Your task to perform on an android device: turn off location Image 0: 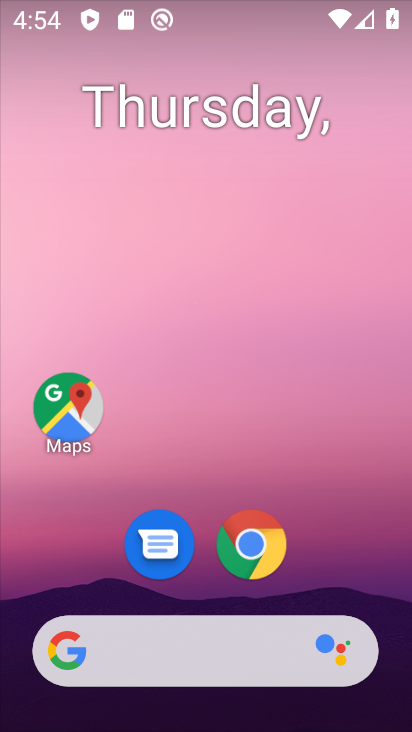
Step 0: drag from (338, 481) to (411, 80)
Your task to perform on an android device: turn off location Image 1: 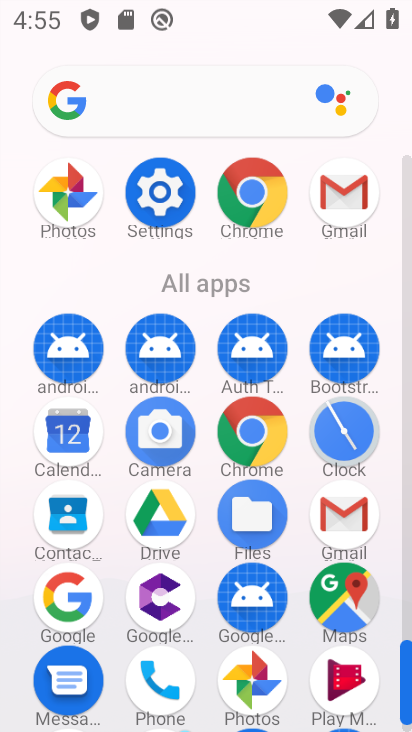
Step 1: click (162, 207)
Your task to perform on an android device: turn off location Image 2: 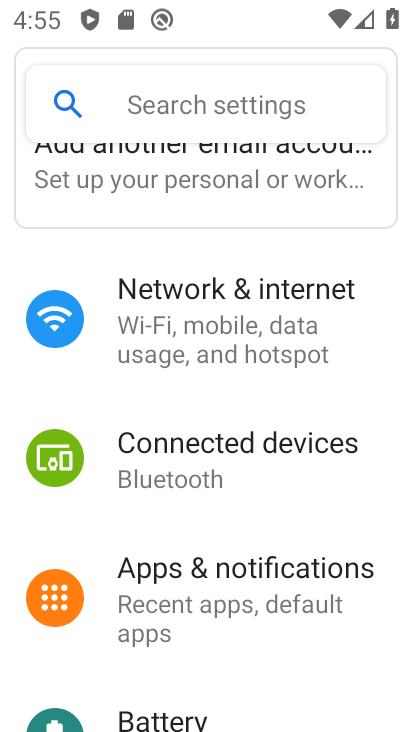
Step 2: drag from (187, 404) to (208, 111)
Your task to perform on an android device: turn off location Image 3: 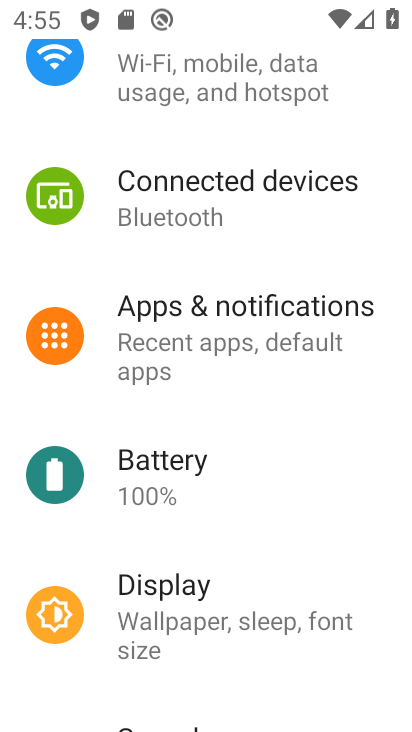
Step 3: drag from (158, 533) to (221, 192)
Your task to perform on an android device: turn off location Image 4: 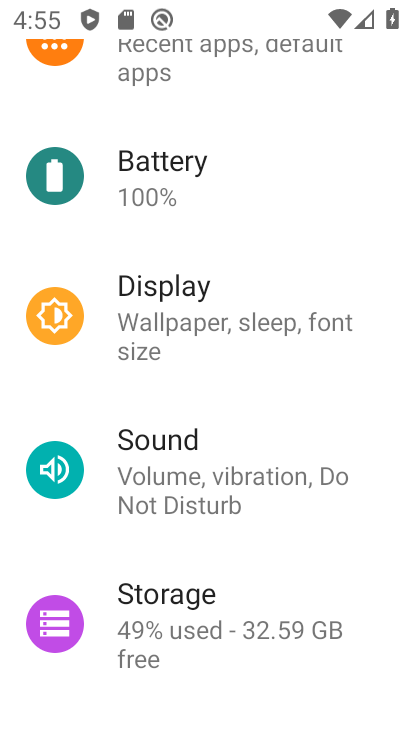
Step 4: drag from (179, 551) to (238, 216)
Your task to perform on an android device: turn off location Image 5: 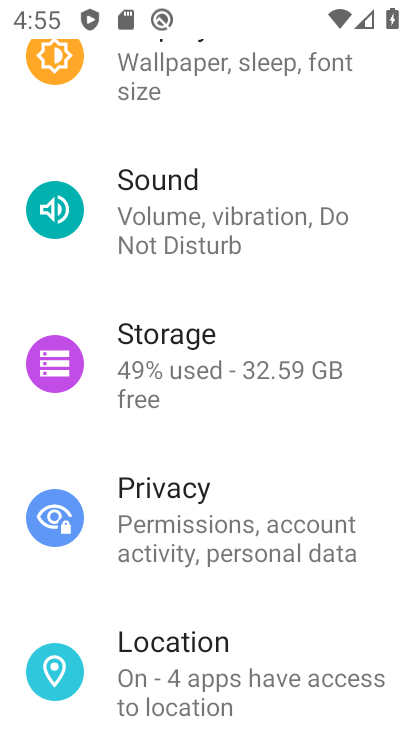
Step 5: click (193, 671)
Your task to perform on an android device: turn off location Image 6: 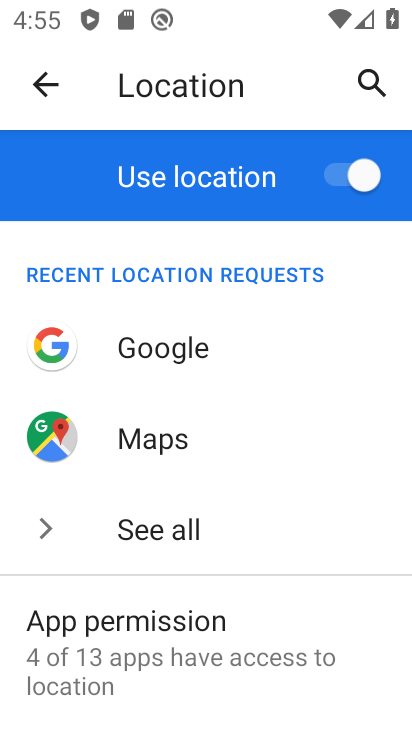
Step 6: click (337, 175)
Your task to perform on an android device: turn off location Image 7: 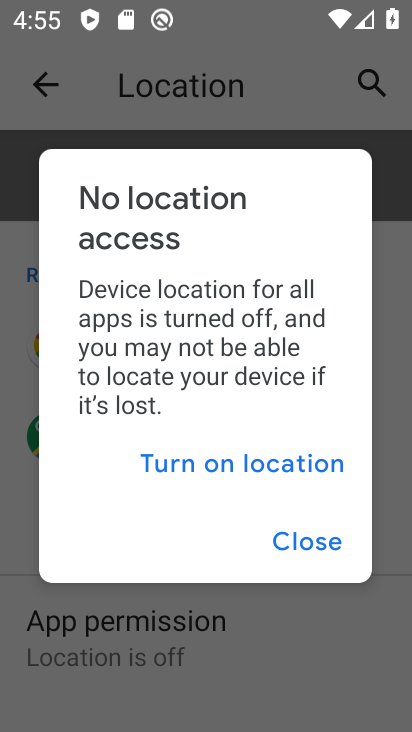
Step 7: click (310, 543)
Your task to perform on an android device: turn off location Image 8: 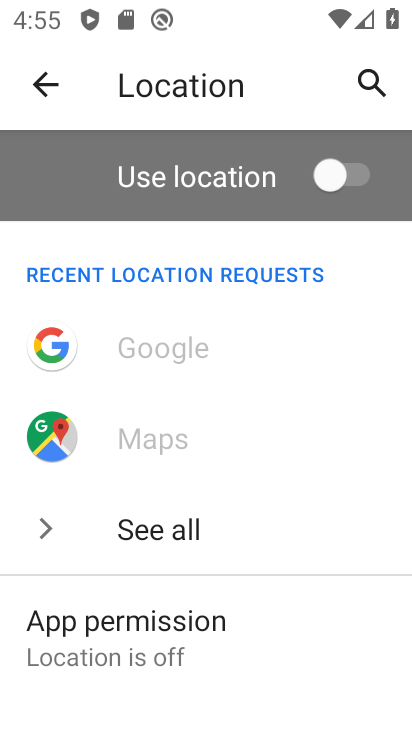
Step 8: task complete